Your task to perform on an android device: Open calendar and show me the fourth week of next month Image 0: 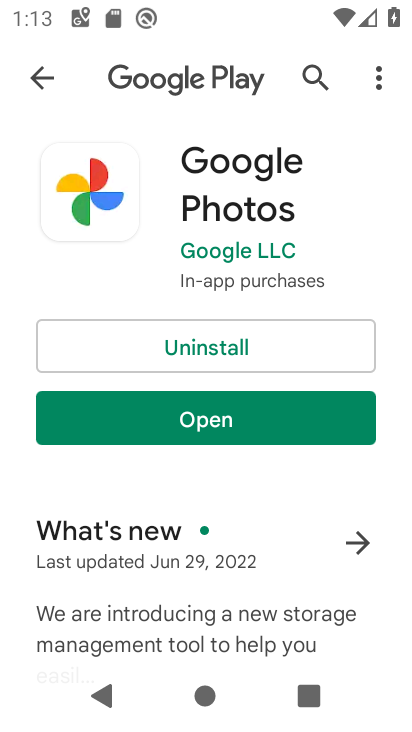
Step 0: press home button
Your task to perform on an android device: Open calendar and show me the fourth week of next month Image 1: 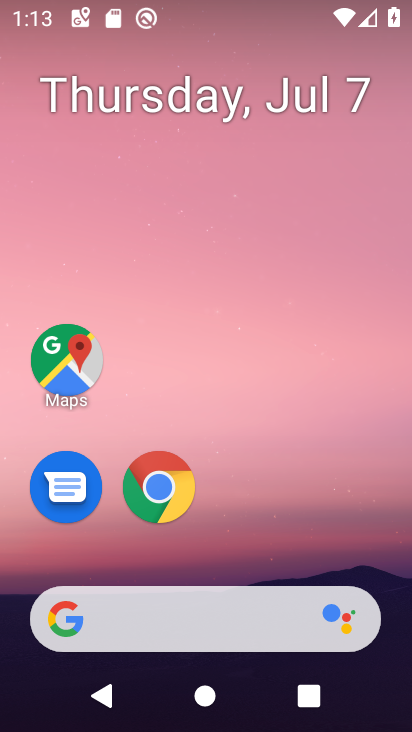
Step 1: drag from (356, 540) to (344, 129)
Your task to perform on an android device: Open calendar and show me the fourth week of next month Image 2: 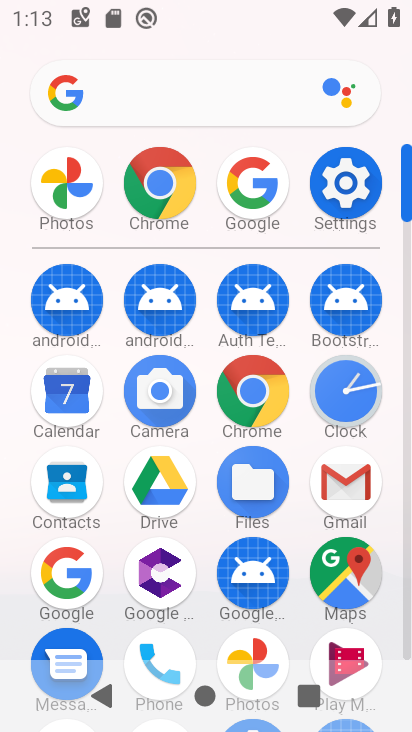
Step 2: click (70, 390)
Your task to perform on an android device: Open calendar and show me the fourth week of next month Image 3: 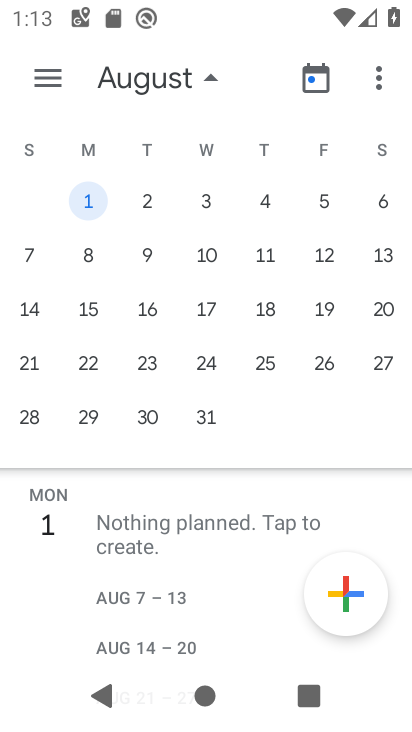
Step 3: click (87, 360)
Your task to perform on an android device: Open calendar and show me the fourth week of next month Image 4: 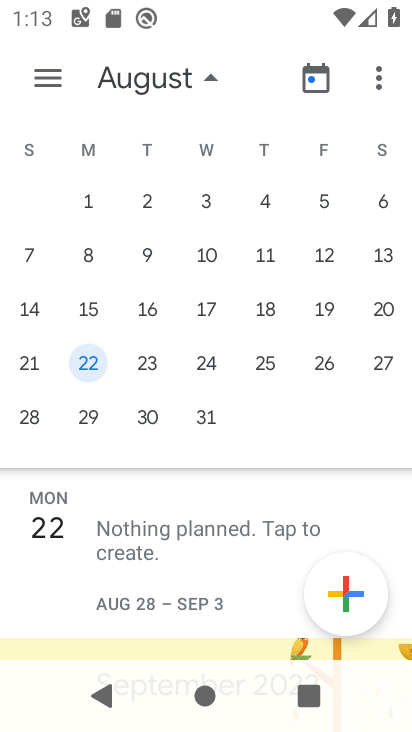
Step 4: task complete